Your task to perform on an android device: Go to network settings Image 0: 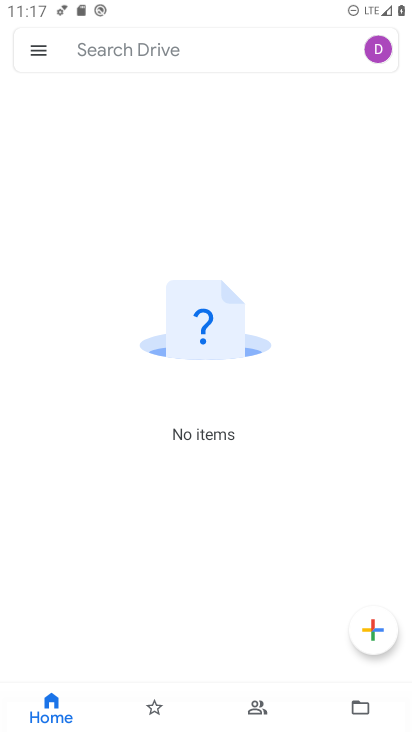
Step 0: press home button
Your task to perform on an android device: Go to network settings Image 1: 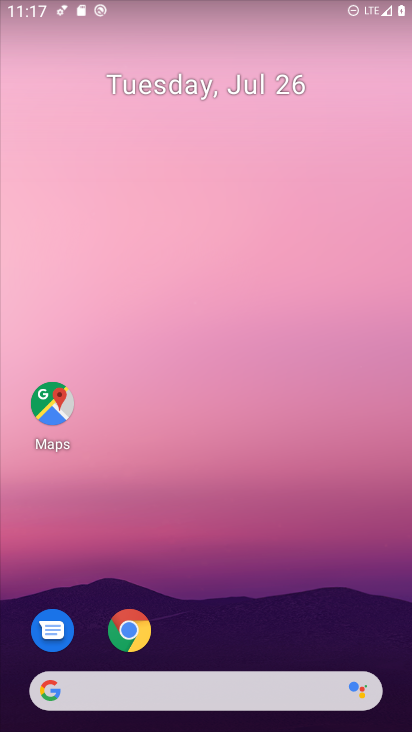
Step 1: drag from (382, 648) to (340, 113)
Your task to perform on an android device: Go to network settings Image 2: 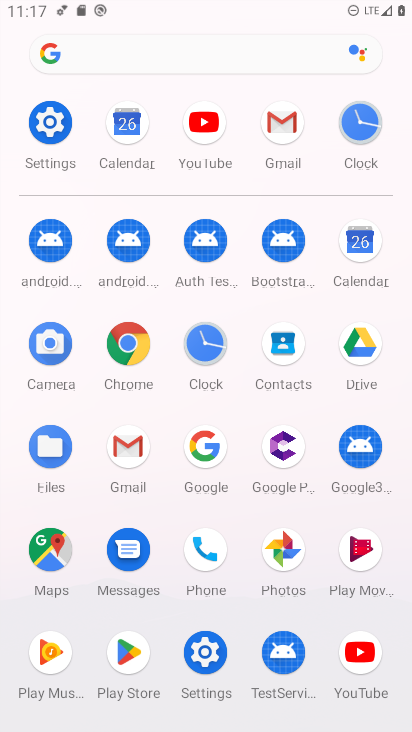
Step 2: click (206, 653)
Your task to perform on an android device: Go to network settings Image 3: 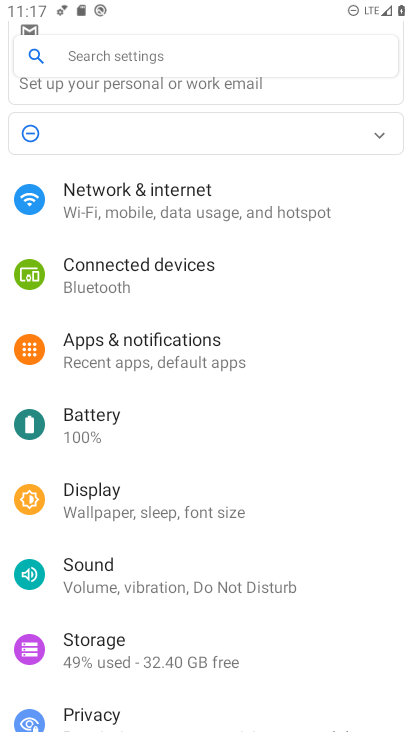
Step 3: click (112, 189)
Your task to perform on an android device: Go to network settings Image 4: 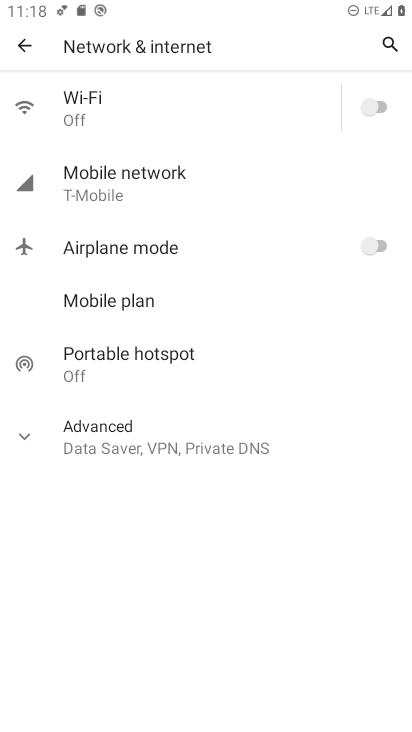
Step 4: click (109, 188)
Your task to perform on an android device: Go to network settings Image 5: 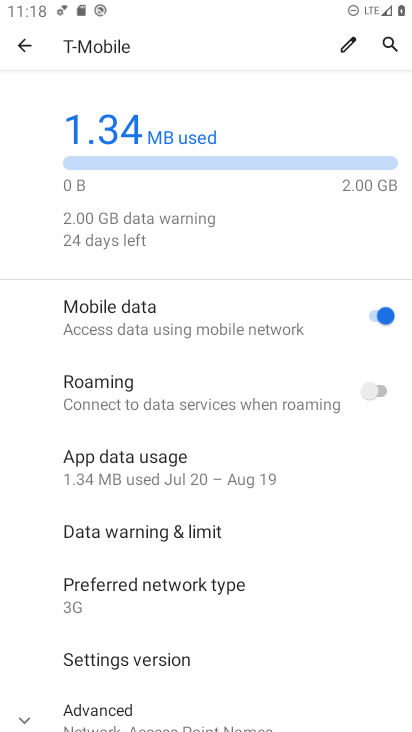
Step 5: click (109, 188)
Your task to perform on an android device: Go to network settings Image 6: 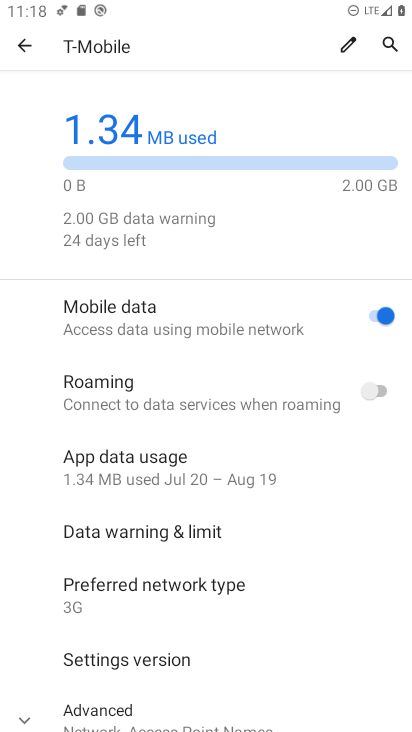
Step 6: drag from (277, 699) to (289, 303)
Your task to perform on an android device: Go to network settings Image 7: 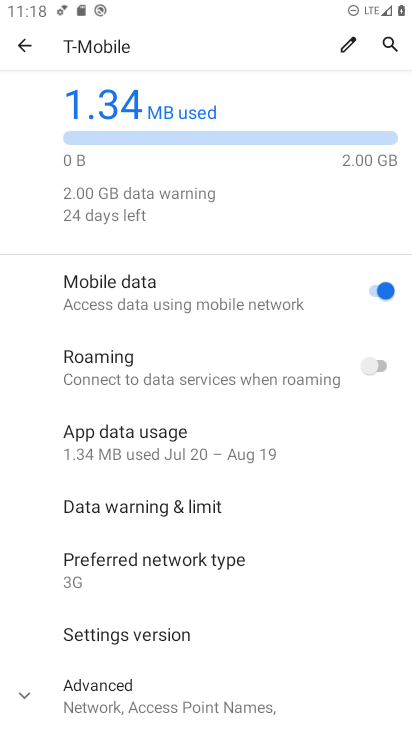
Step 7: click (19, 691)
Your task to perform on an android device: Go to network settings Image 8: 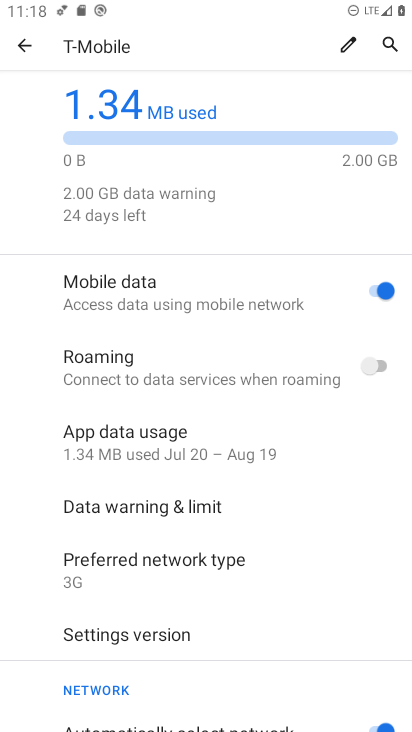
Step 8: task complete